Your task to perform on an android device: toggle pop-ups in chrome Image 0: 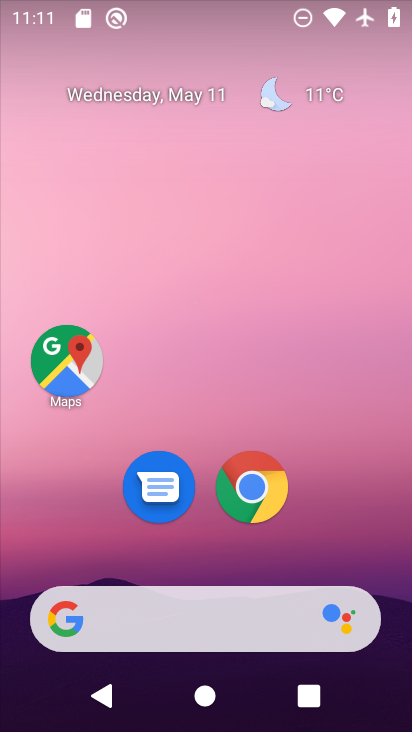
Step 0: drag from (328, 440) to (251, 35)
Your task to perform on an android device: toggle pop-ups in chrome Image 1: 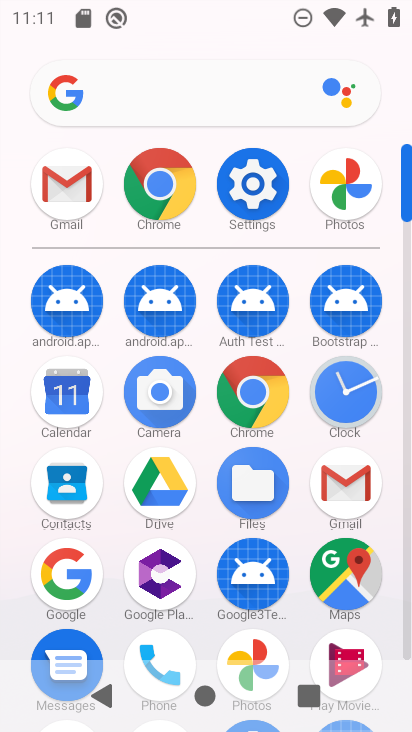
Step 1: click (156, 181)
Your task to perform on an android device: toggle pop-ups in chrome Image 2: 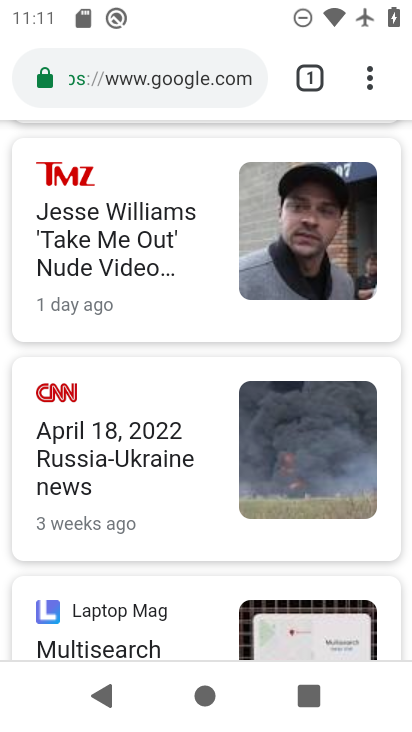
Step 2: drag from (369, 75) to (128, 555)
Your task to perform on an android device: toggle pop-ups in chrome Image 3: 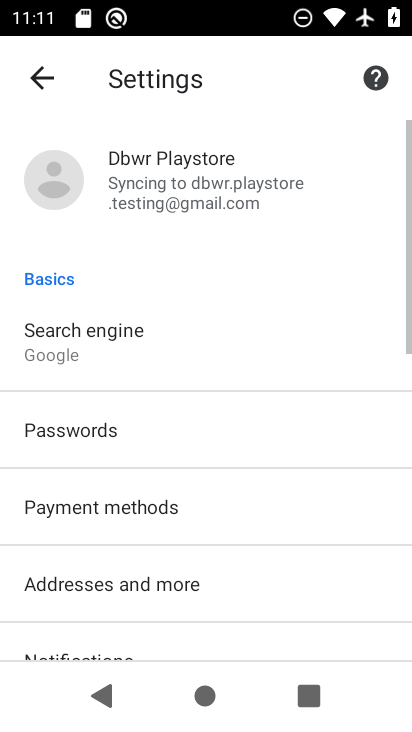
Step 3: drag from (262, 506) to (257, 140)
Your task to perform on an android device: toggle pop-ups in chrome Image 4: 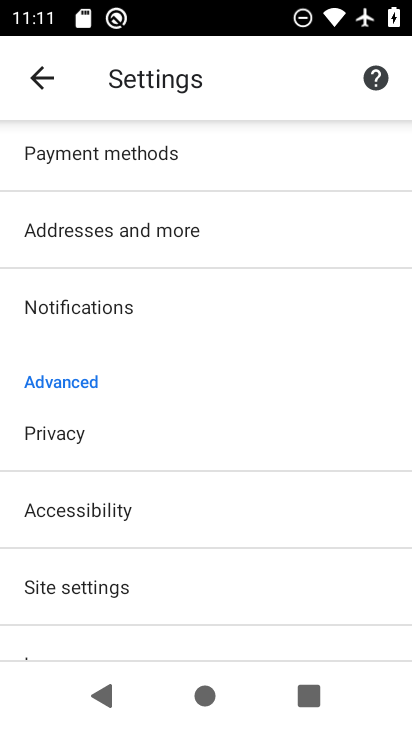
Step 4: drag from (199, 564) to (227, 193)
Your task to perform on an android device: toggle pop-ups in chrome Image 5: 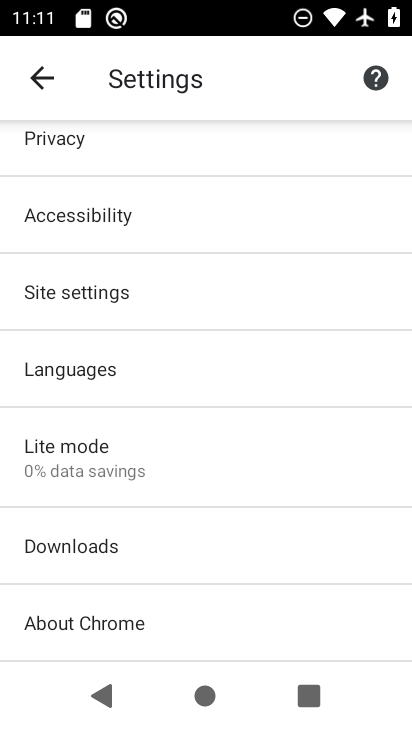
Step 5: click (128, 283)
Your task to perform on an android device: toggle pop-ups in chrome Image 6: 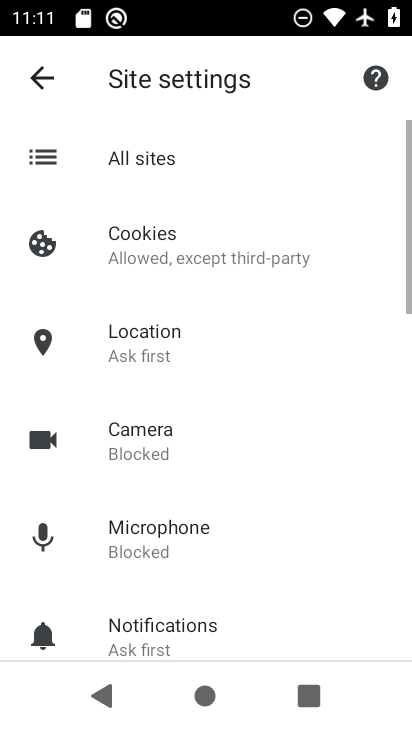
Step 6: drag from (252, 576) to (275, 227)
Your task to perform on an android device: toggle pop-ups in chrome Image 7: 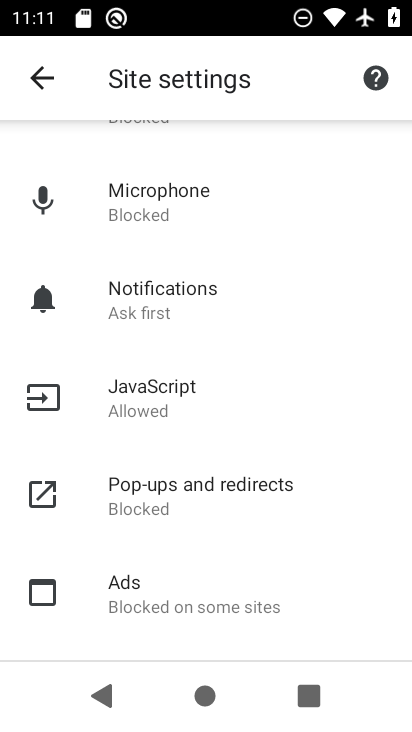
Step 7: click (177, 513)
Your task to perform on an android device: toggle pop-ups in chrome Image 8: 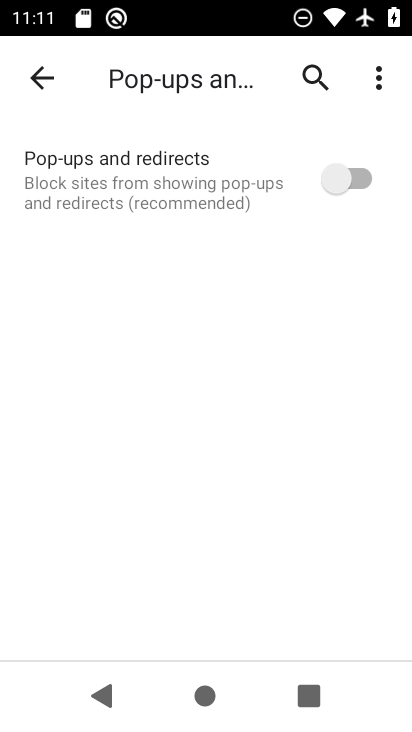
Step 8: click (354, 176)
Your task to perform on an android device: toggle pop-ups in chrome Image 9: 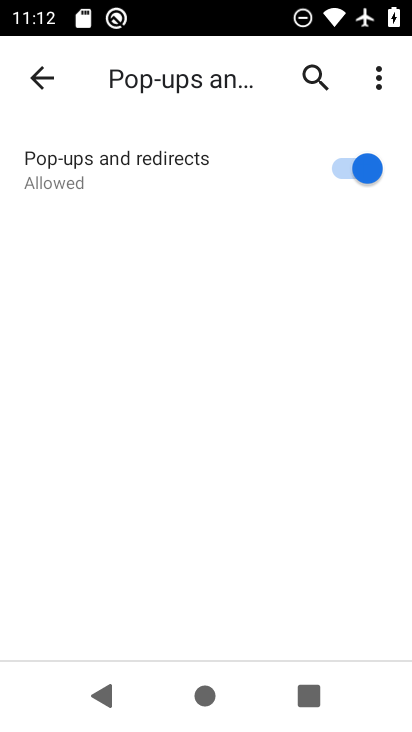
Step 9: task complete